Your task to perform on an android device: Open settings Image 0: 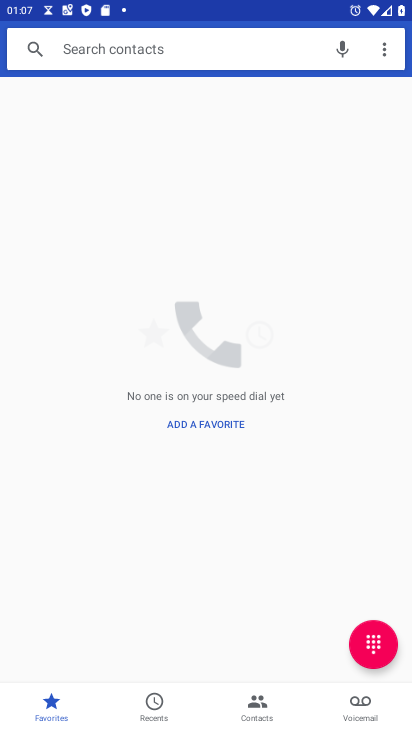
Step 0: press home button
Your task to perform on an android device: Open settings Image 1: 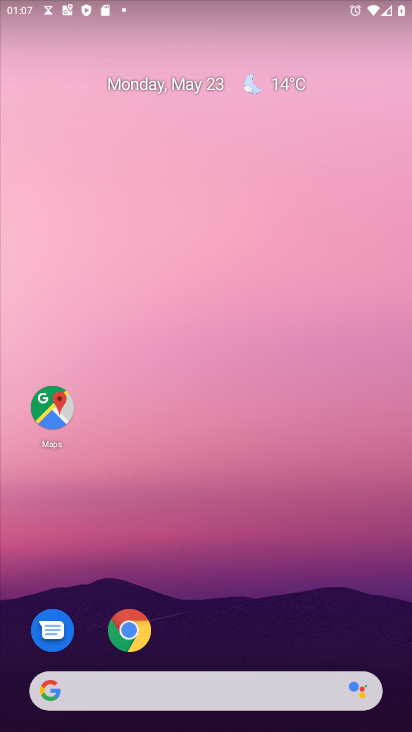
Step 1: drag from (279, 553) to (240, 1)
Your task to perform on an android device: Open settings Image 2: 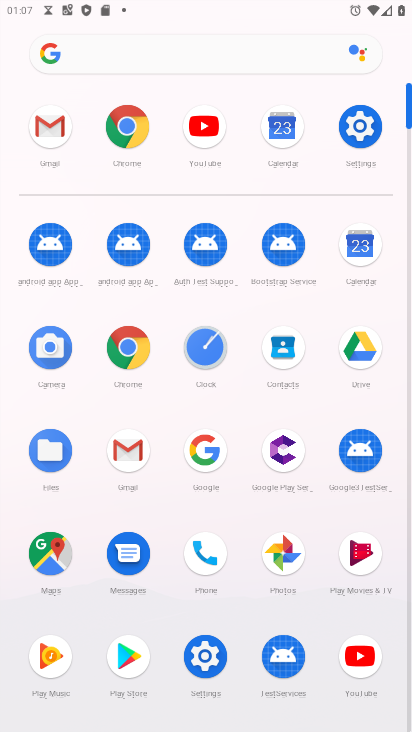
Step 2: click (372, 132)
Your task to perform on an android device: Open settings Image 3: 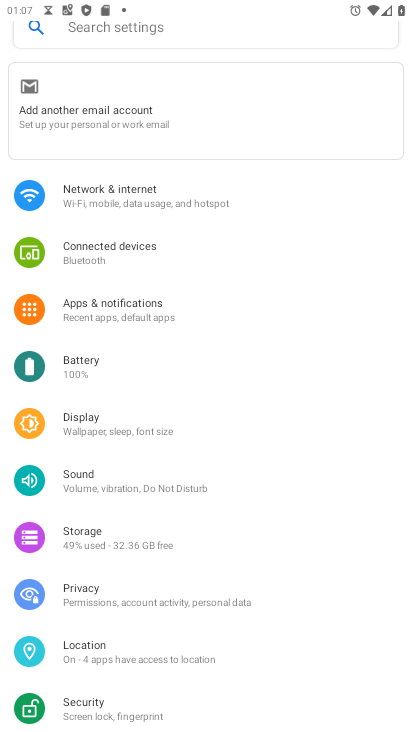
Step 3: task complete